Your task to perform on an android device: Go to privacy settings Image 0: 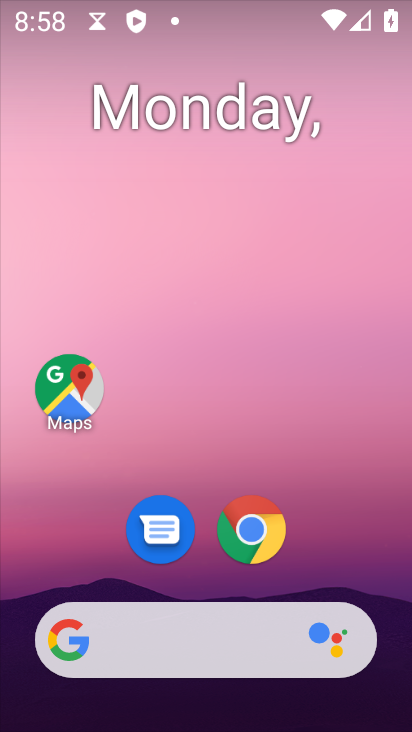
Step 0: drag from (285, 709) to (128, 147)
Your task to perform on an android device: Go to privacy settings Image 1: 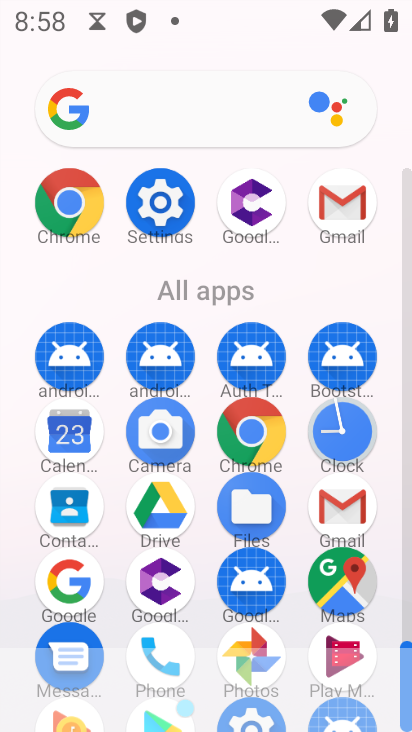
Step 1: click (157, 196)
Your task to perform on an android device: Go to privacy settings Image 2: 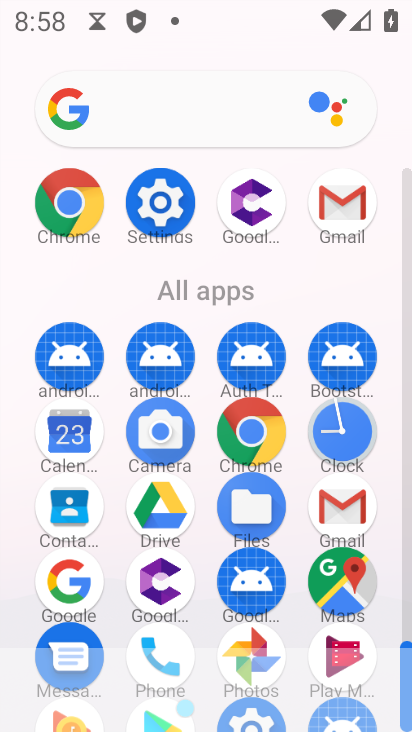
Step 2: click (158, 196)
Your task to perform on an android device: Go to privacy settings Image 3: 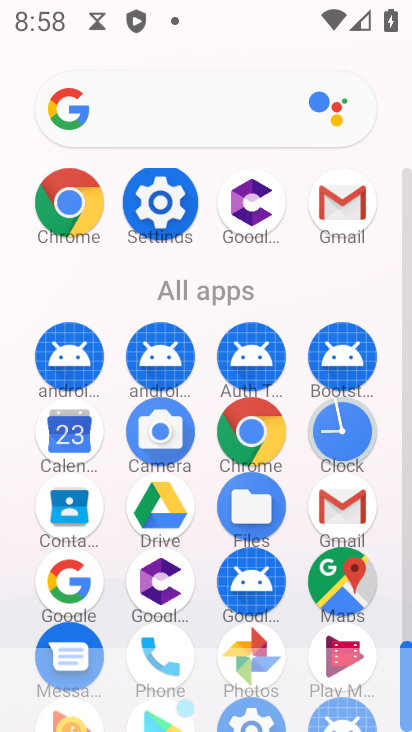
Step 3: click (159, 195)
Your task to perform on an android device: Go to privacy settings Image 4: 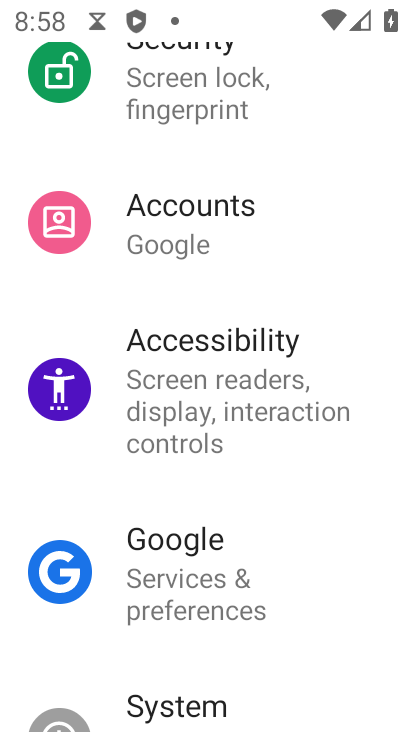
Step 4: drag from (176, 605) to (231, 638)
Your task to perform on an android device: Go to privacy settings Image 5: 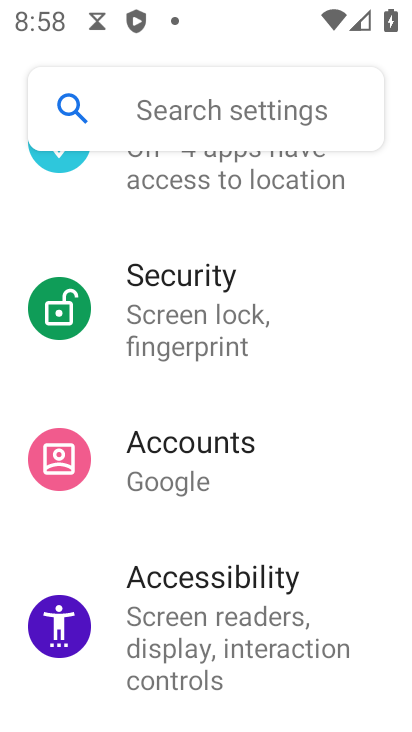
Step 5: drag from (168, 235) to (178, 542)
Your task to perform on an android device: Go to privacy settings Image 6: 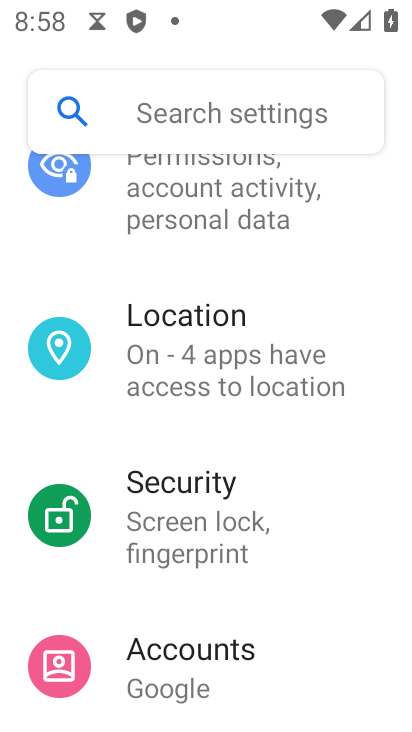
Step 6: drag from (175, 356) to (243, 629)
Your task to perform on an android device: Go to privacy settings Image 7: 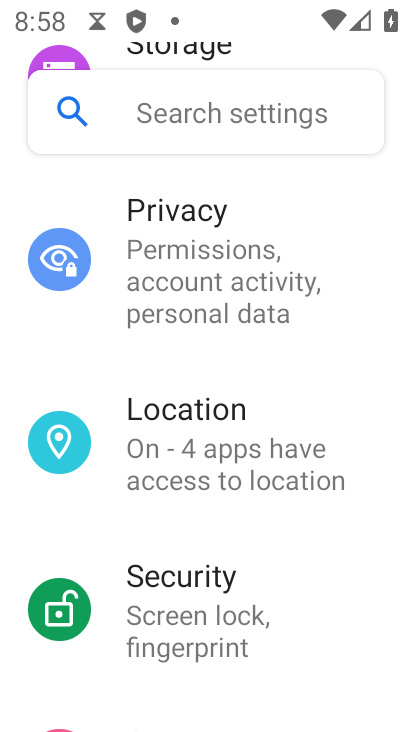
Step 7: drag from (173, 281) to (240, 601)
Your task to perform on an android device: Go to privacy settings Image 8: 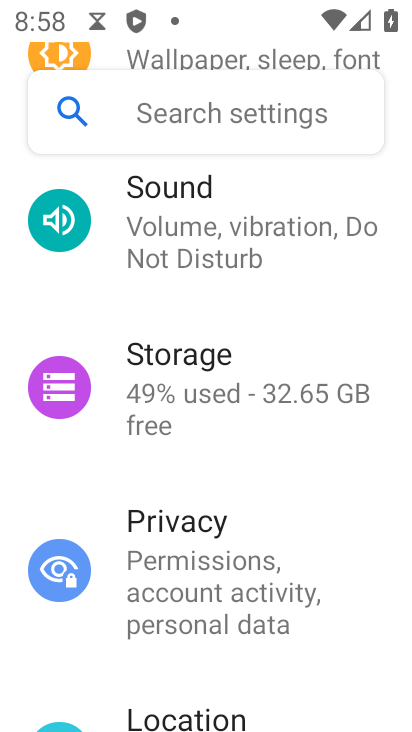
Step 8: click (169, 595)
Your task to perform on an android device: Go to privacy settings Image 9: 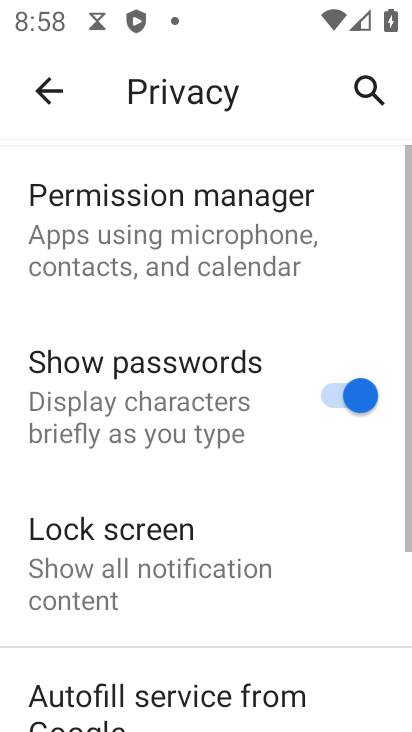
Step 9: task complete